Your task to perform on an android device: Open calendar and show me the second week of next month Image 0: 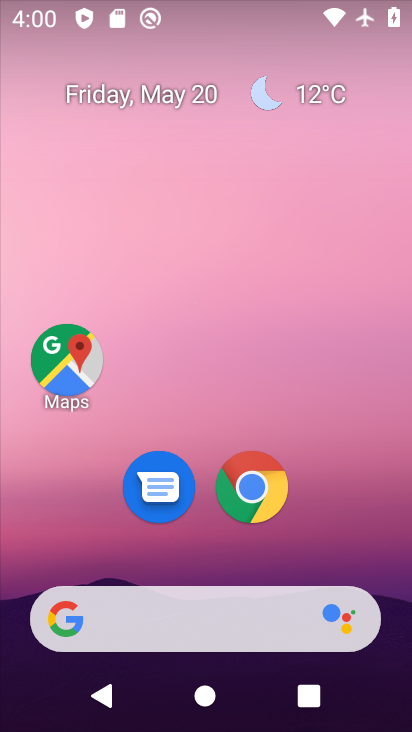
Step 0: drag from (289, 549) to (285, 164)
Your task to perform on an android device: Open calendar and show me the second week of next month Image 1: 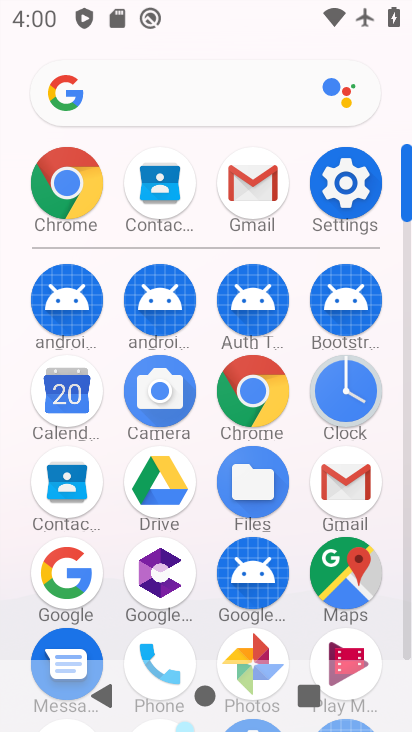
Step 1: click (50, 411)
Your task to perform on an android device: Open calendar and show me the second week of next month Image 2: 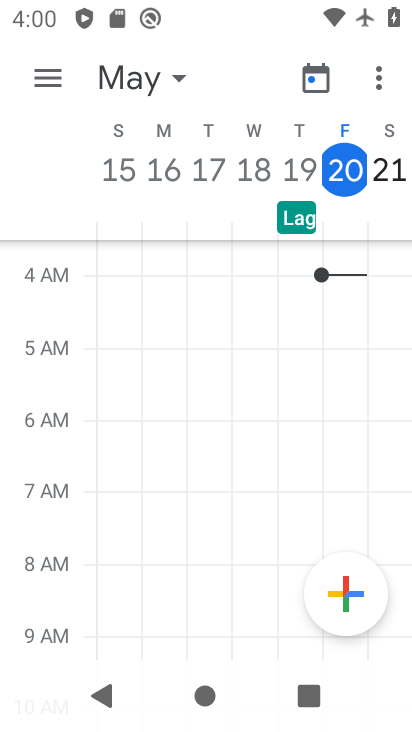
Step 2: click (125, 85)
Your task to perform on an android device: Open calendar and show me the second week of next month Image 3: 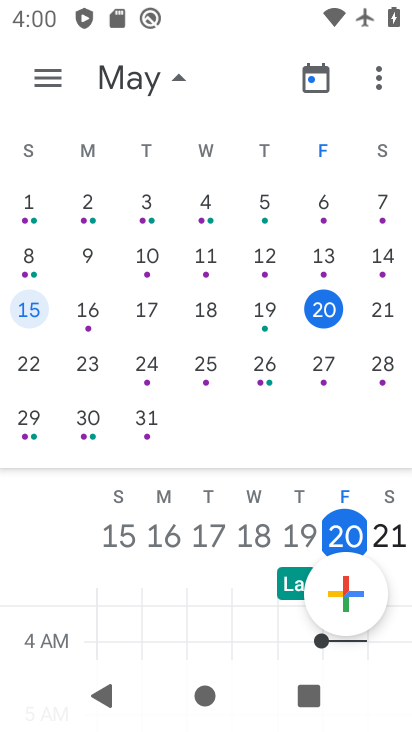
Step 3: click (31, 261)
Your task to perform on an android device: Open calendar and show me the second week of next month Image 4: 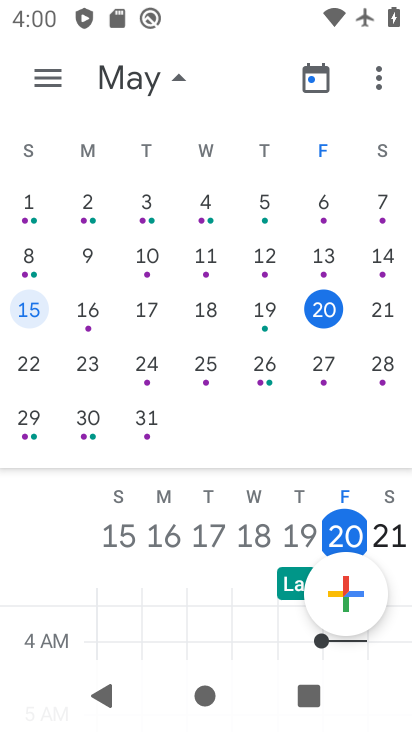
Step 4: click (24, 255)
Your task to perform on an android device: Open calendar and show me the second week of next month Image 5: 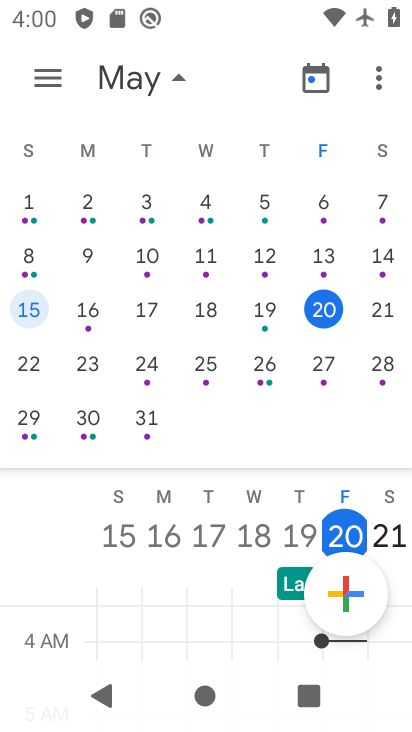
Step 5: click (25, 256)
Your task to perform on an android device: Open calendar and show me the second week of next month Image 6: 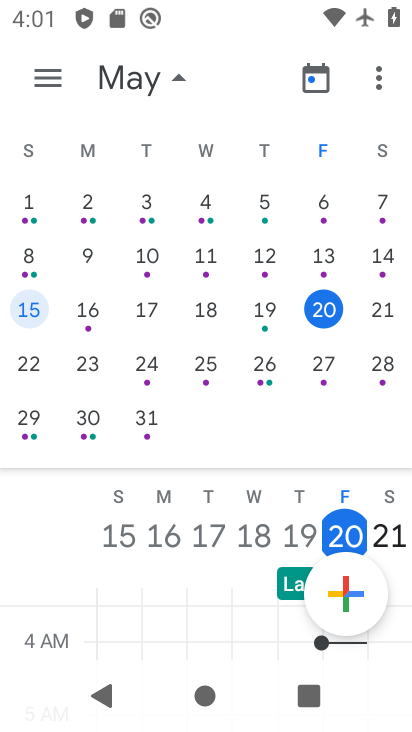
Step 6: click (37, 258)
Your task to perform on an android device: Open calendar and show me the second week of next month Image 7: 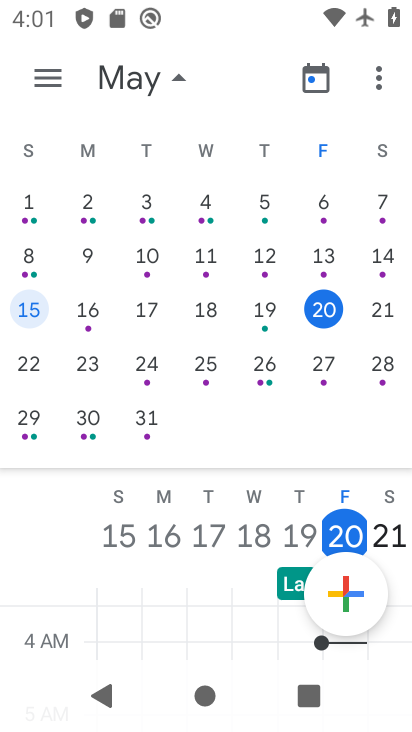
Step 7: click (142, 84)
Your task to perform on an android device: Open calendar and show me the second week of next month Image 8: 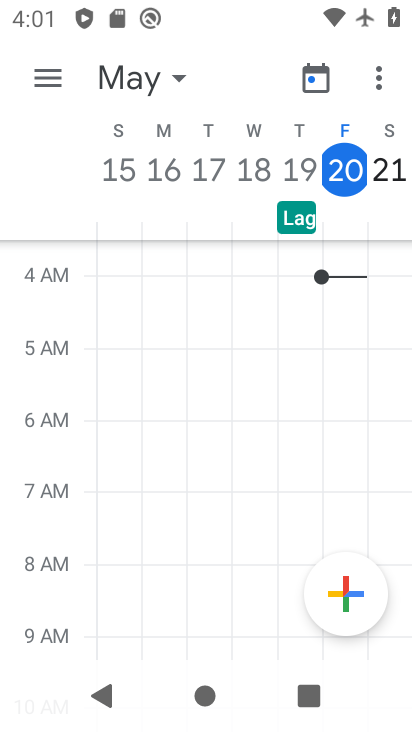
Step 8: click (134, 79)
Your task to perform on an android device: Open calendar and show me the second week of next month Image 9: 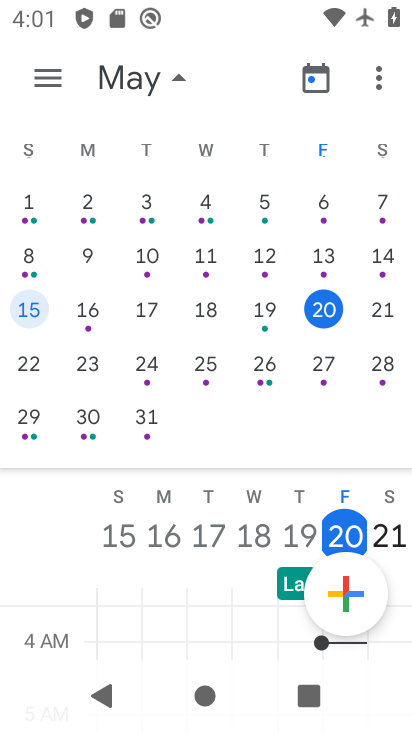
Step 9: drag from (337, 227) to (16, 236)
Your task to perform on an android device: Open calendar and show me the second week of next month Image 10: 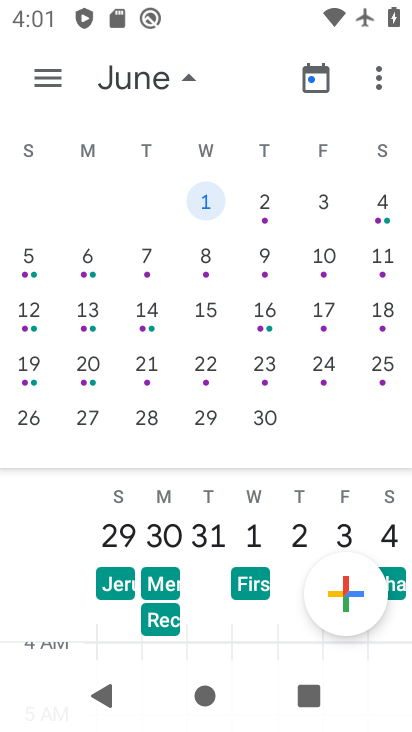
Step 10: click (34, 322)
Your task to perform on an android device: Open calendar and show me the second week of next month Image 11: 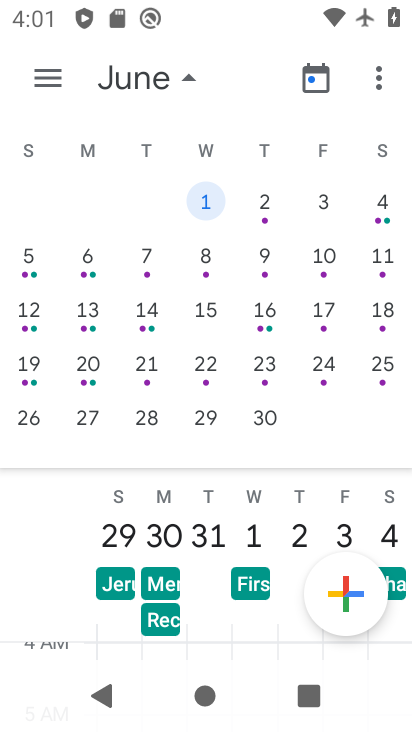
Step 11: click (34, 322)
Your task to perform on an android device: Open calendar and show me the second week of next month Image 12: 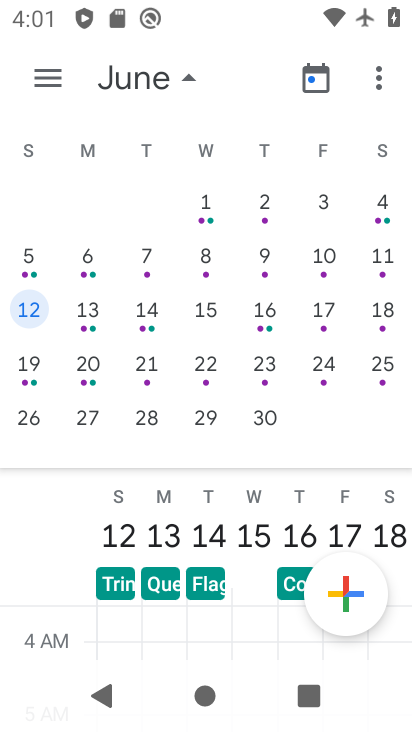
Step 12: task complete